Your task to perform on an android device: change the upload size in google photos Image 0: 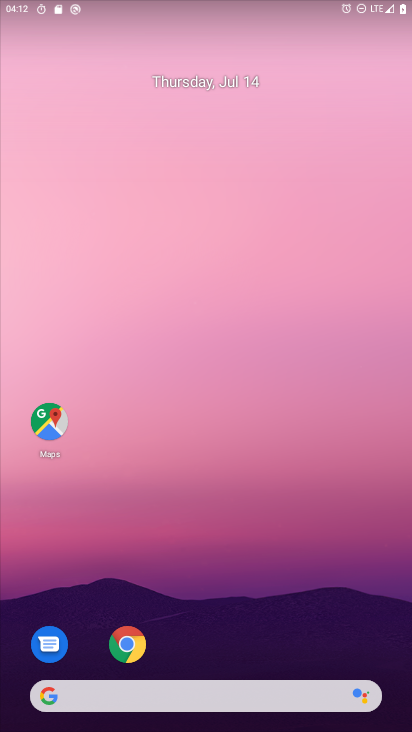
Step 0: drag from (291, 470) to (256, 82)
Your task to perform on an android device: change the upload size in google photos Image 1: 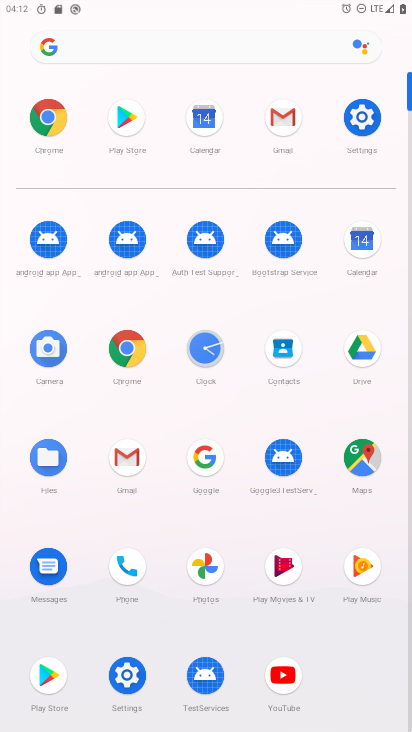
Step 1: click (206, 558)
Your task to perform on an android device: change the upload size in google photos Image 2: 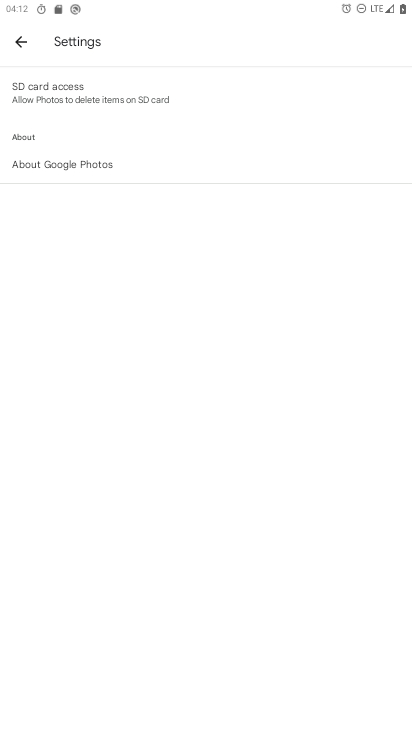
Step 2: click (25, 40)
Your task to perform on an android device: change the upload size in google photos Image 3: 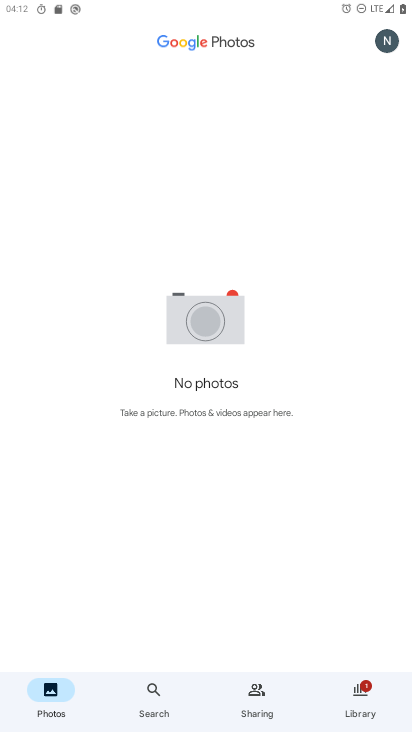
Step 3: click (391, 39)
Your task to perform on an android device: change the upload size in google photos Image 4: 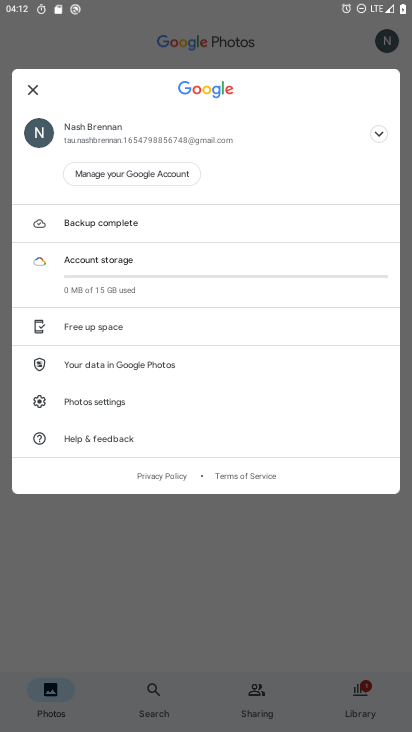
Step 4: click (100, 408)
Your task to perform on an android device: change the upload size in google photos Image 5: 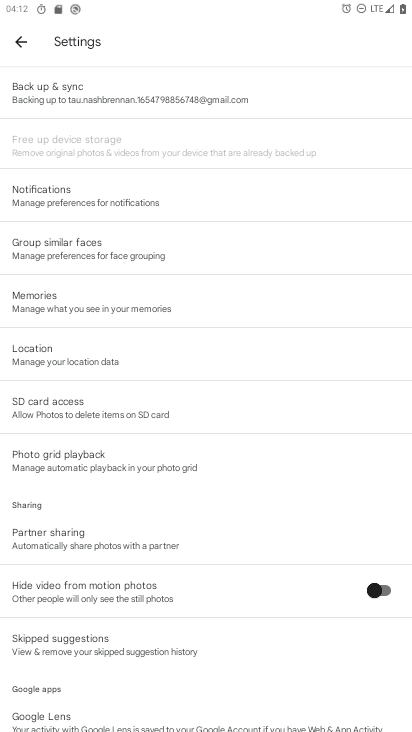
Step 5: click (144, 91)
Your task to perform on an android device: change the upload size in google photos Image 6: 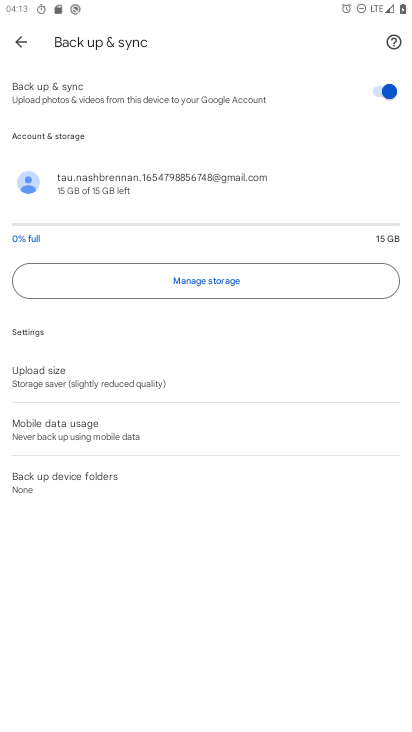
Step 6: click (88, 381)
Your task to perform on an android device: change the upload size in google photos Image 7: 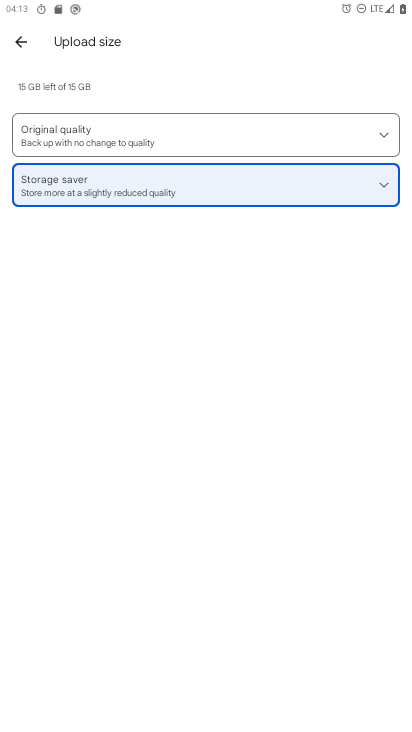
Step 7: click (104, 142)
Your task to perform on an android device: change the upload size in google photos Image 8: 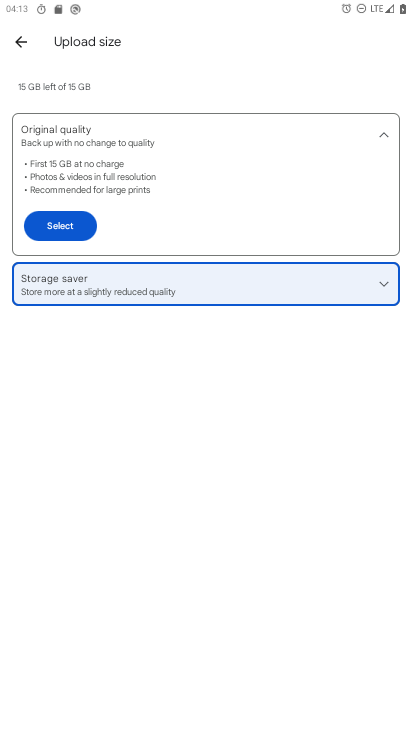
Step 8: click (61, 227)
Your task to perform on an android device: change the upload size in google photos Image 9: 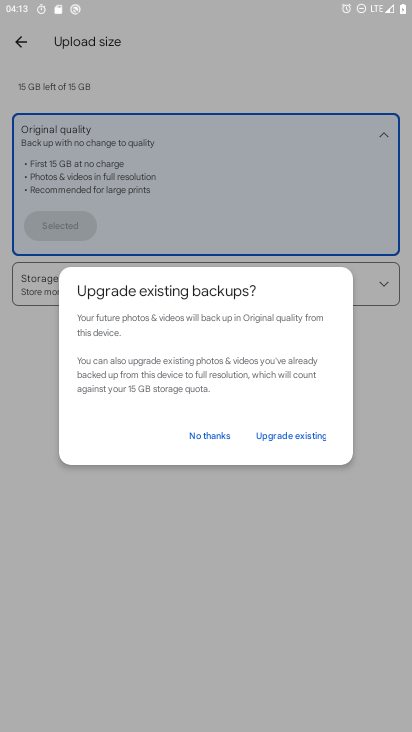
Step 9: click (213, 435)
Your task to perform on an android device: change the upload size in google photos Image 10: 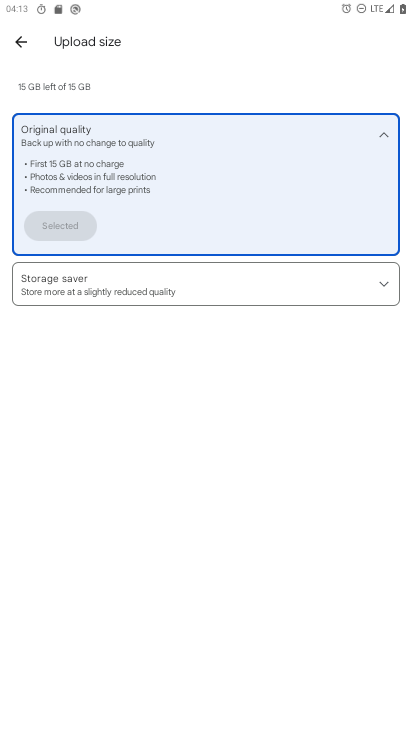
Step 10: task complete